Your task to perform on an android device: What's the weather? Image 0: 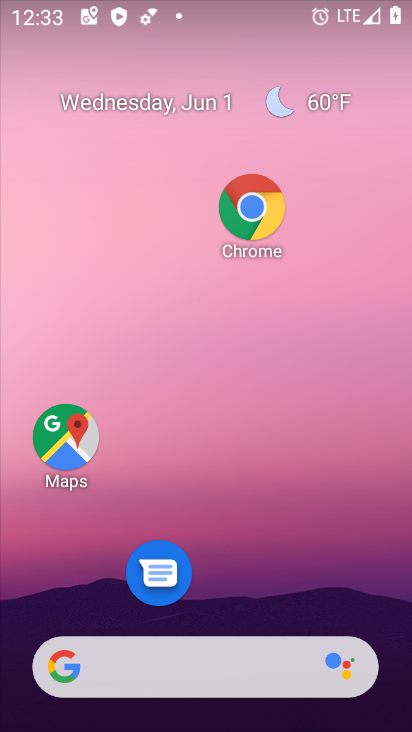
Step 0: drag from (208, 600) to (209, 226)
Your task to perform on an android device: What's the weather? Image 1: 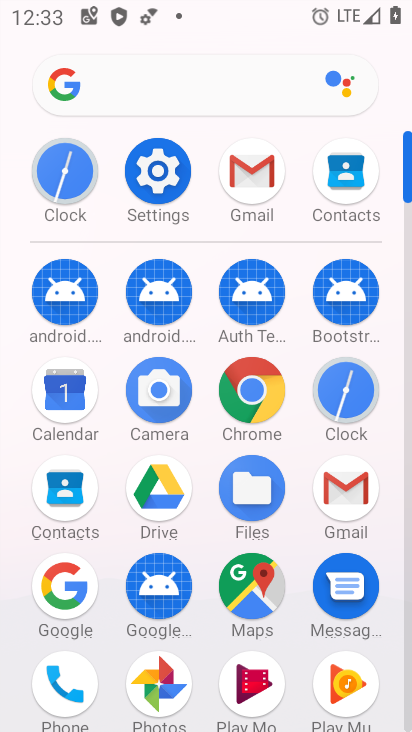
Step 1: click (65, 599)
Your task to perform on an android device: What's the weather? Image 2: 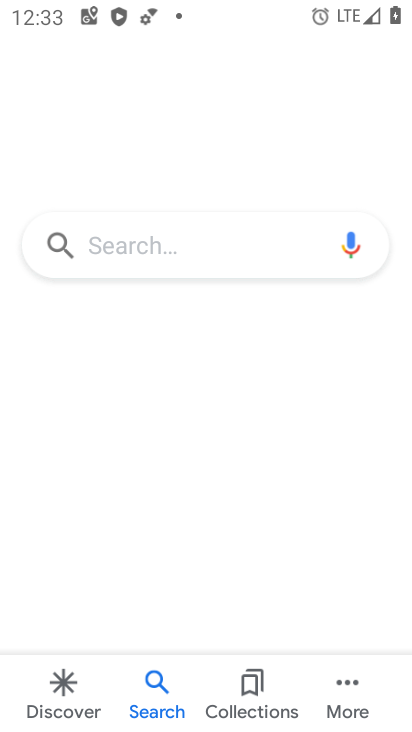
Step 2: click (159, 242)
Your task to perform on an android device: What's the weather? Image 3: 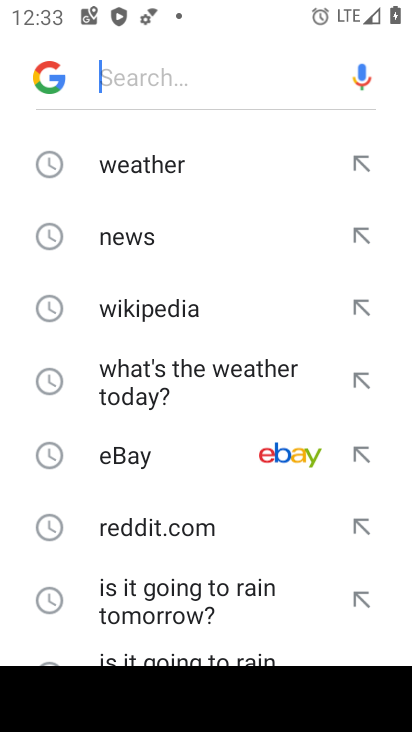
Step 3: click (142, 177)
Your task to perform on an android device: What's the weather? Image 4: 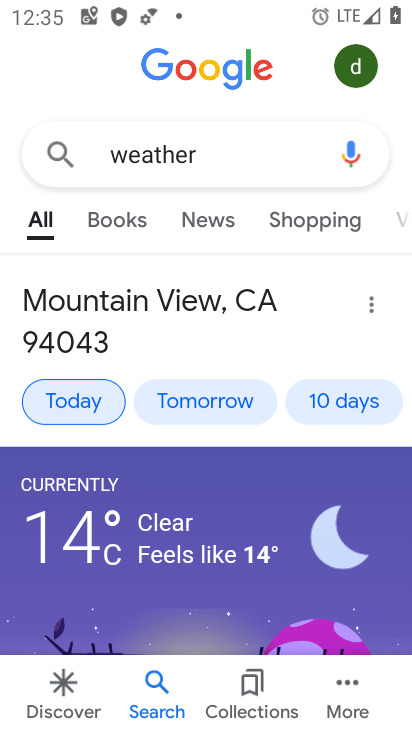
Step 4: task complete